Your task to perform on an android device: empty trash in the gmail app Image 0: 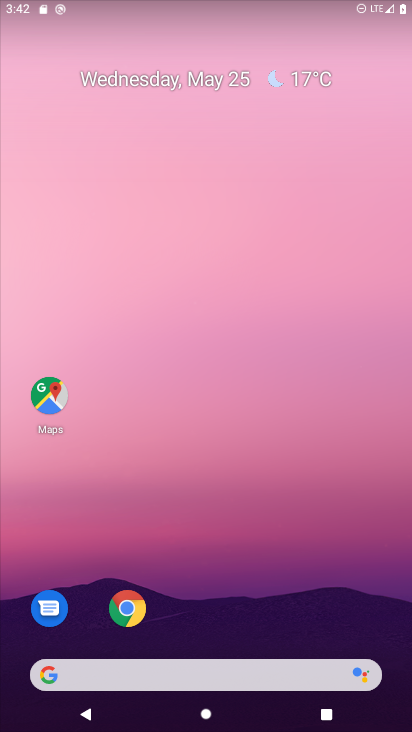
Step 0: drag from (385, 630) to (357, 181)
Your task to perform on an android device: empty trash in the gmail app Image 1: 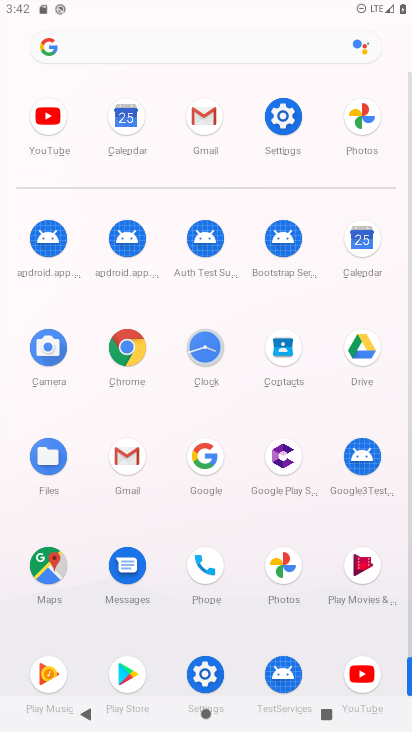
Step 1: click (126, 457)
Your task to perform on an android device: empty trash in the gmail app Image 2: 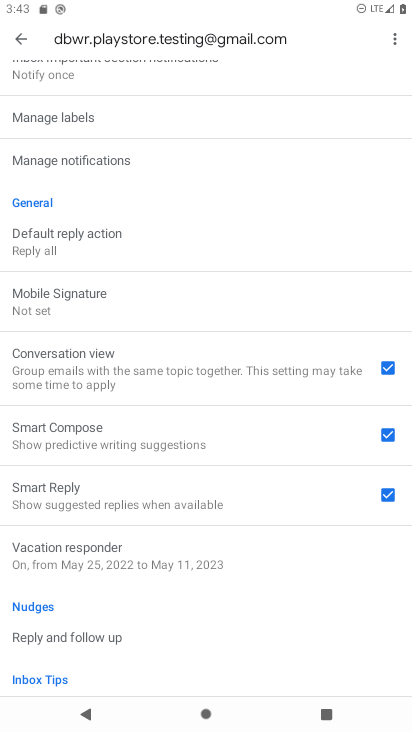
Step 2: press back button
Your task to perform on an android device: empty trash in the gmail app Image 3: 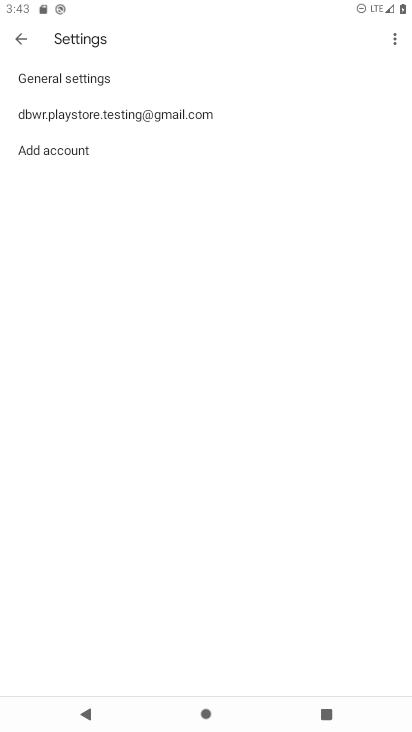
Step 3: press back button
Your task to perform on an android device: empty trash in the gmail app Image 4: 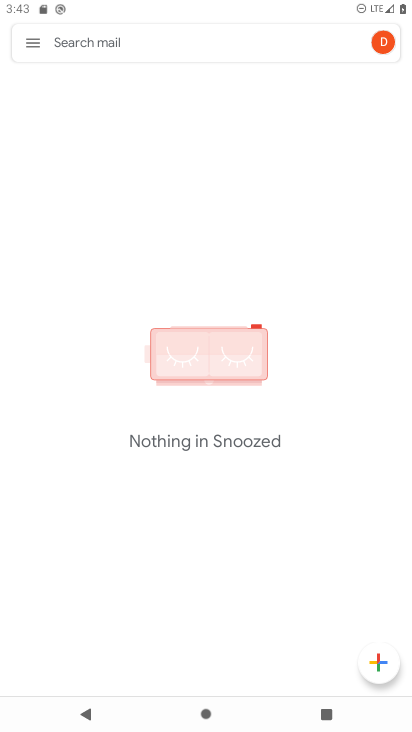
Step 4: click (30, 45)
Your task to perform on an android device: empty trash in the gmail app Image 5: 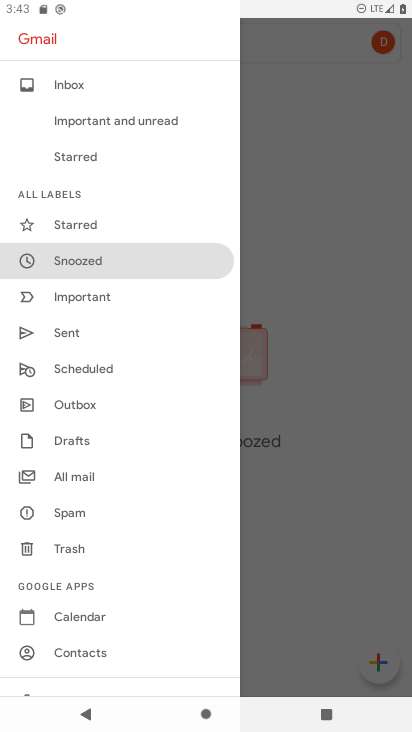
Step 5: click (72, 544)
Your task to perform on an android device: empty trash in the gmail app Image 6: 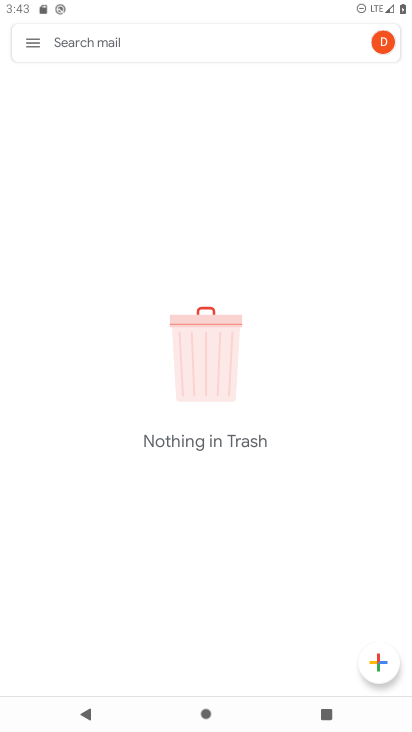
Step 6: task complete